Your task to perform on an android device: uninstall "Yahoo Mail" Image 0: 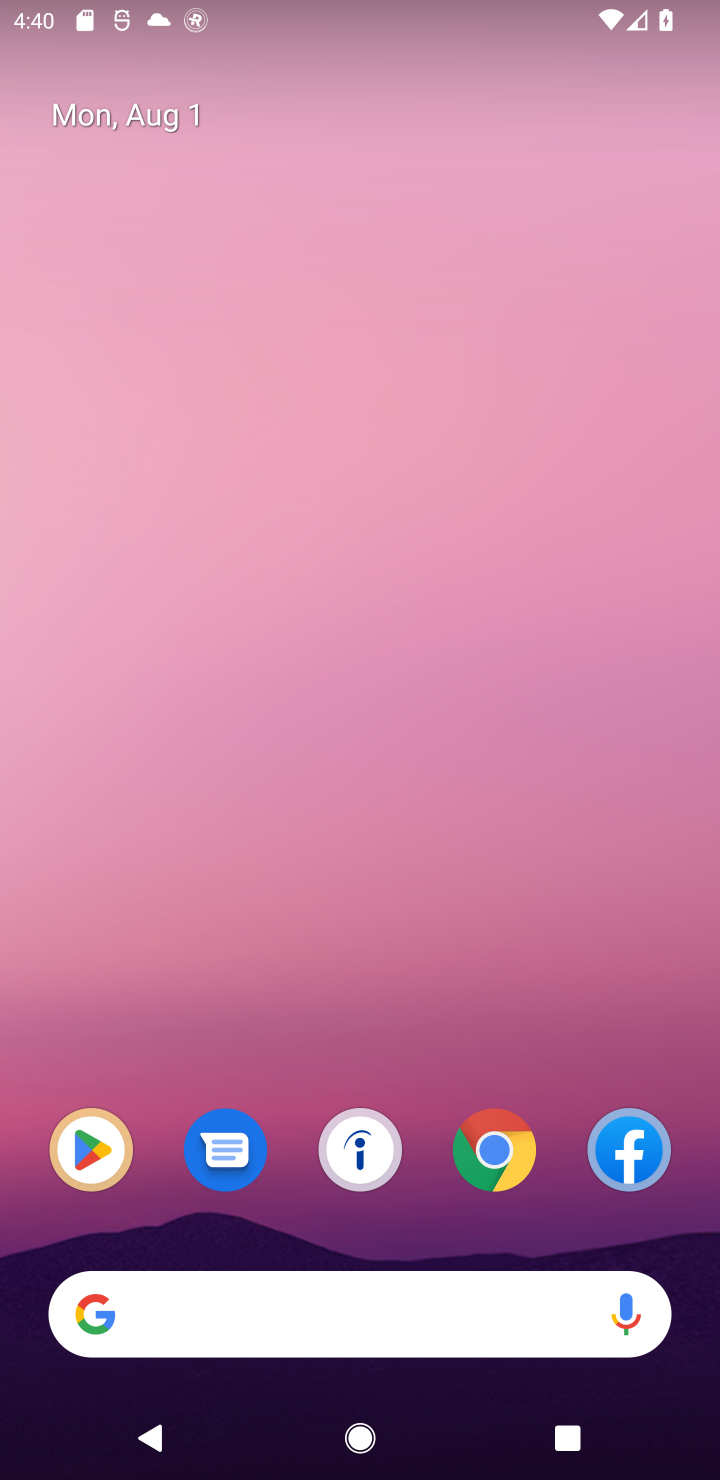
Step 0: click (103, 1172)
Your task to perform on an android device: uninstall "Yahoo Mail" Image 1: 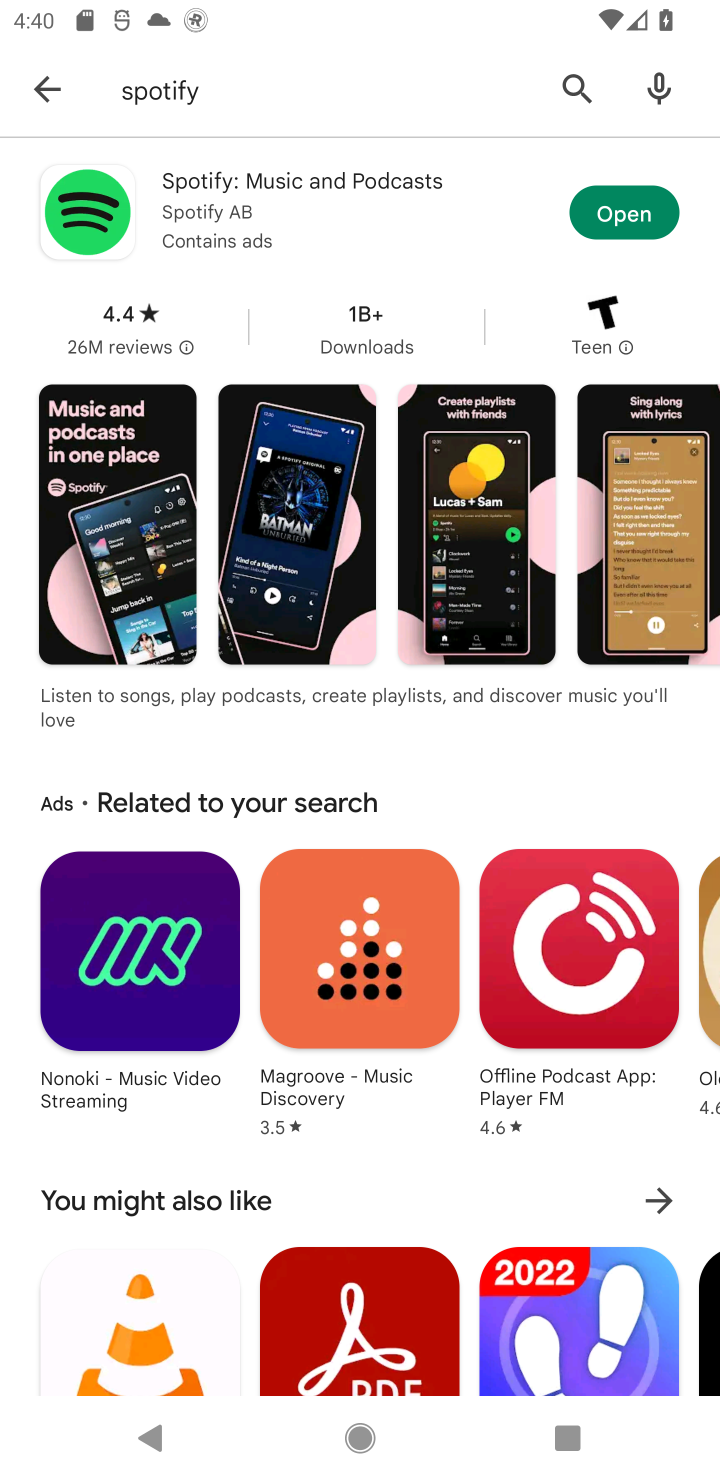
Step 1: click (579, 98)
Your task to perform on an android device: uninstall "Yahoo Mail" Image 2: 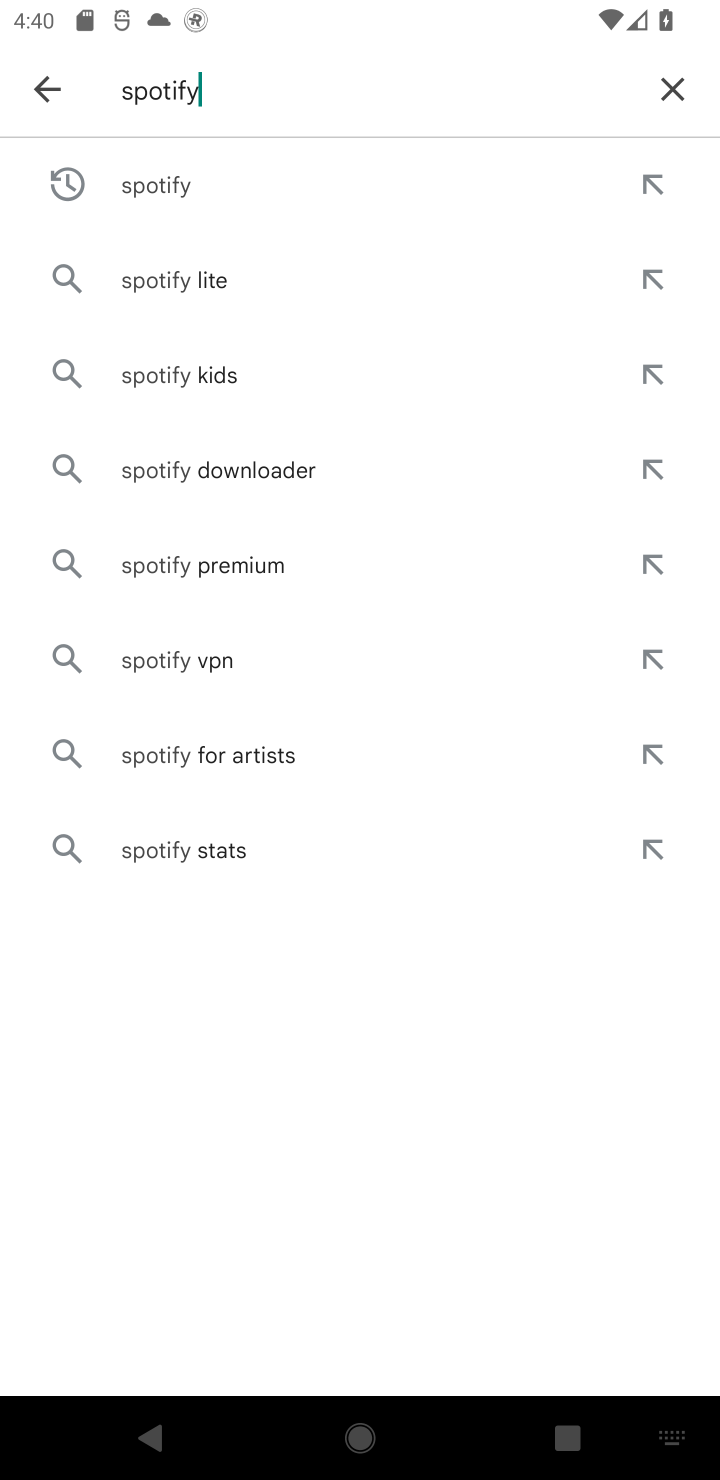
Step 2: click (679, 94)
Your task to perform on an android device: uninstall "Yahoo Mail" Image 3: 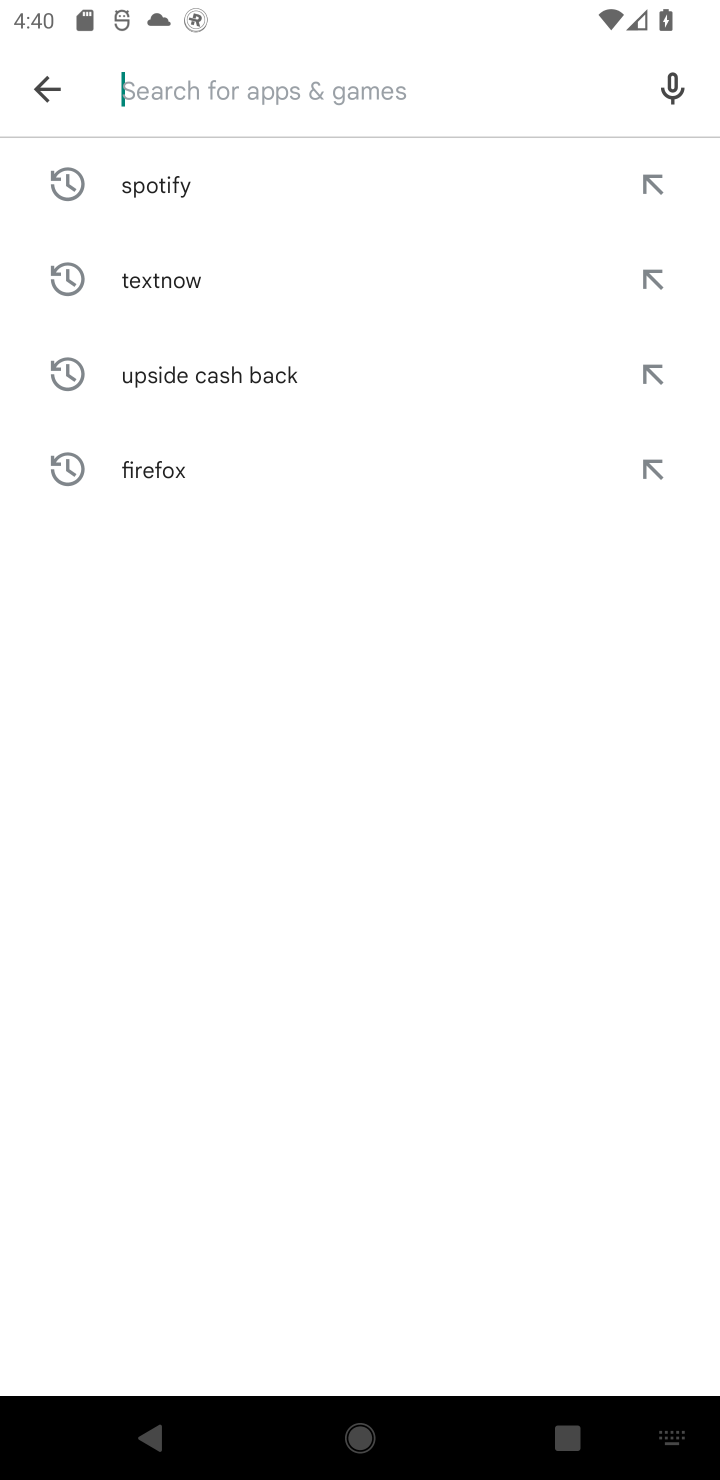
Step 3: type "yahoomail.com"
Your task to perform on an android device: uninstall "Yahoo Mail" Image 4: 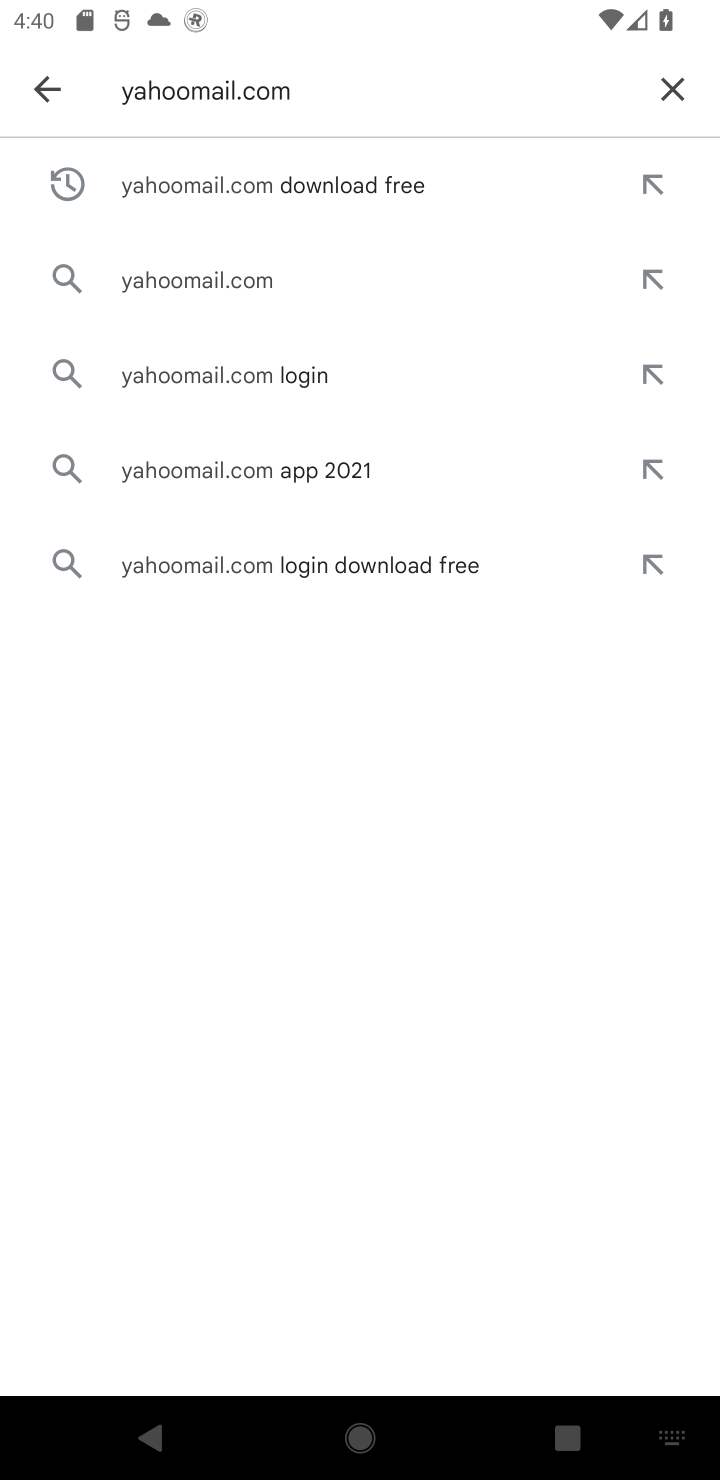
Step 4: click (245, 206)
Your task to perform on an android device: uninstall "Yahoo Mail" Image 5: 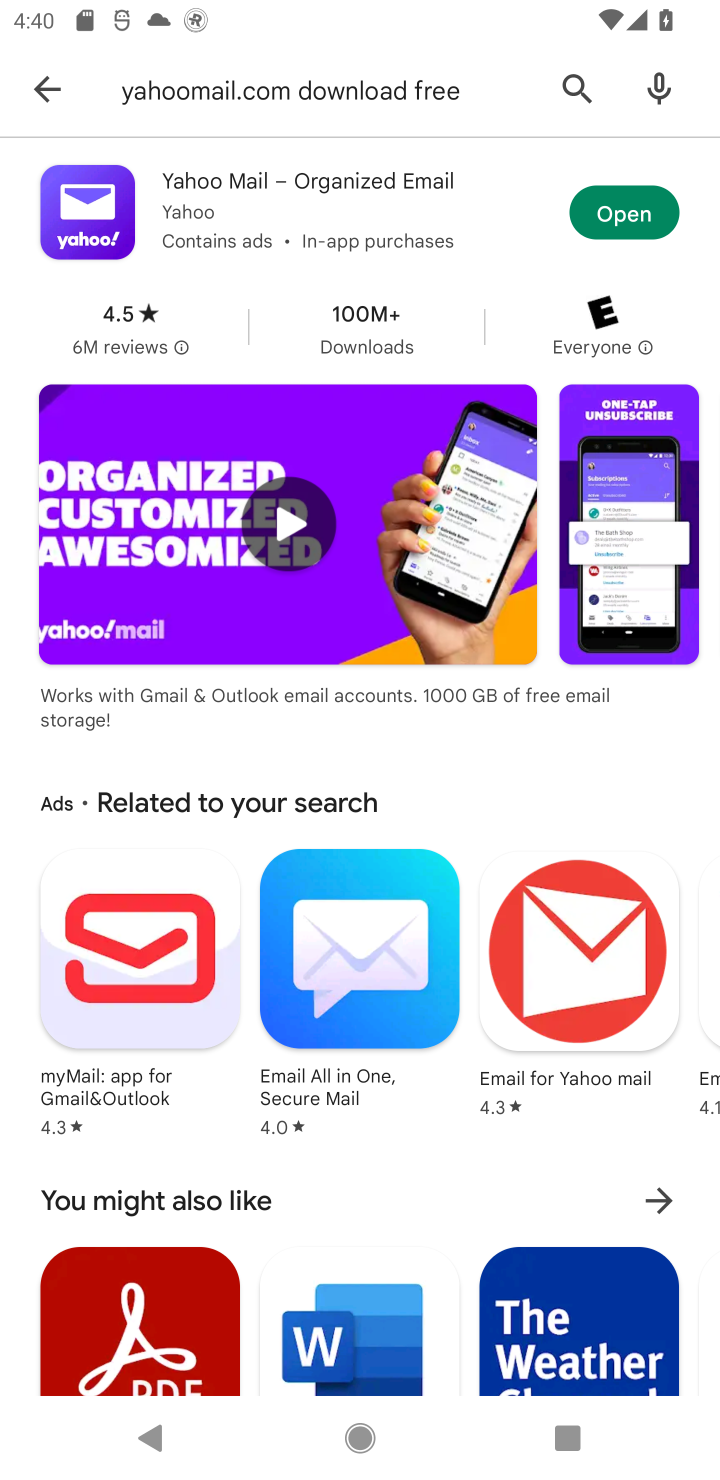
Step 5: click (625, 236)
Your task to perform on an android device: uninstall "Yahoo Mail" Image 6: 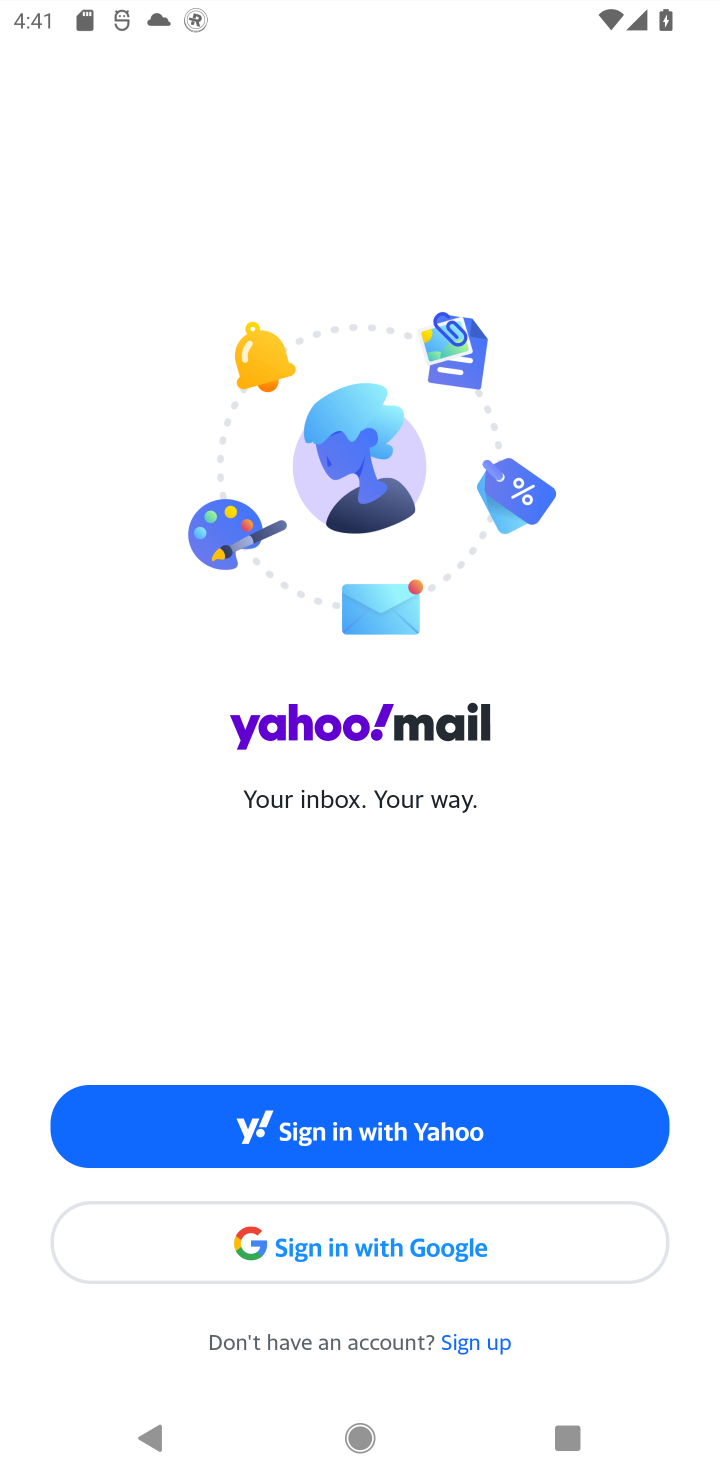
Step 6: task complete